Your task to perform on an android device: open app "PlayWell" (install if not already installed) and enter user name: "metric@gmail.com" and password: "bumblebee" Image 0: 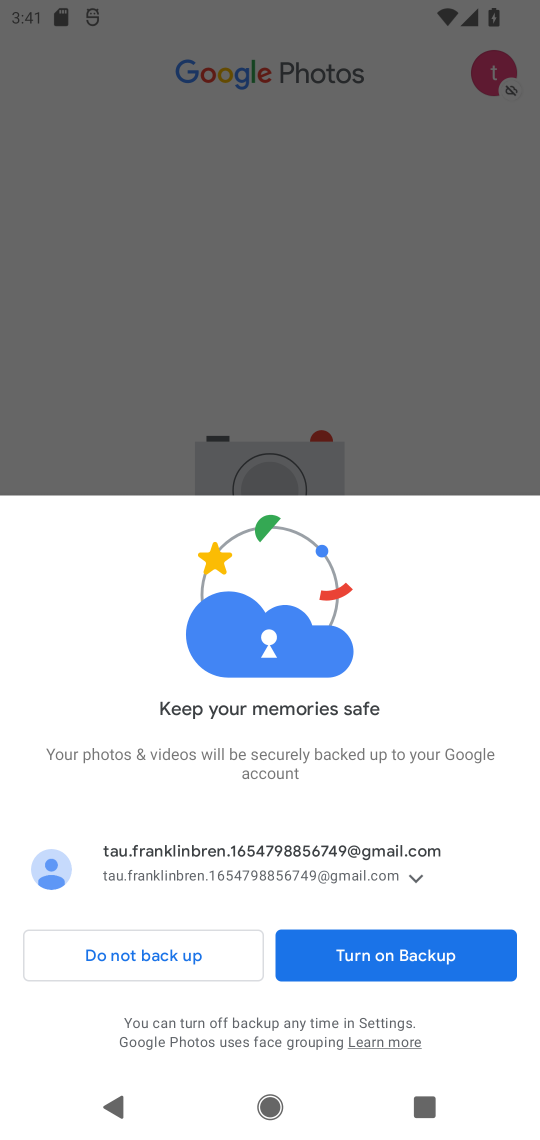
Step 0: press home button
Your task to perform on an android device: open app "PlayWell" (install if not already installed) and enter user name: "metric@gmail.com" and password: "bumblebee" Image 1: 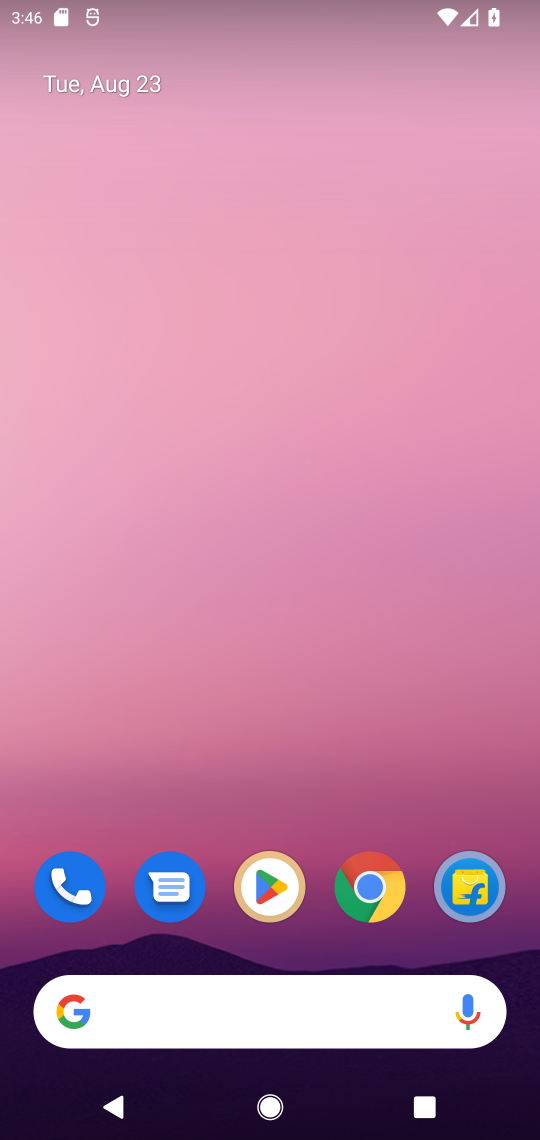
Step 1: click (259, 888)
Your task to perform on an android device: open app "PlayWell" (install if not already installed) and enter user name: "metric@gmail.com" and password: "bumblebee" Image 2: 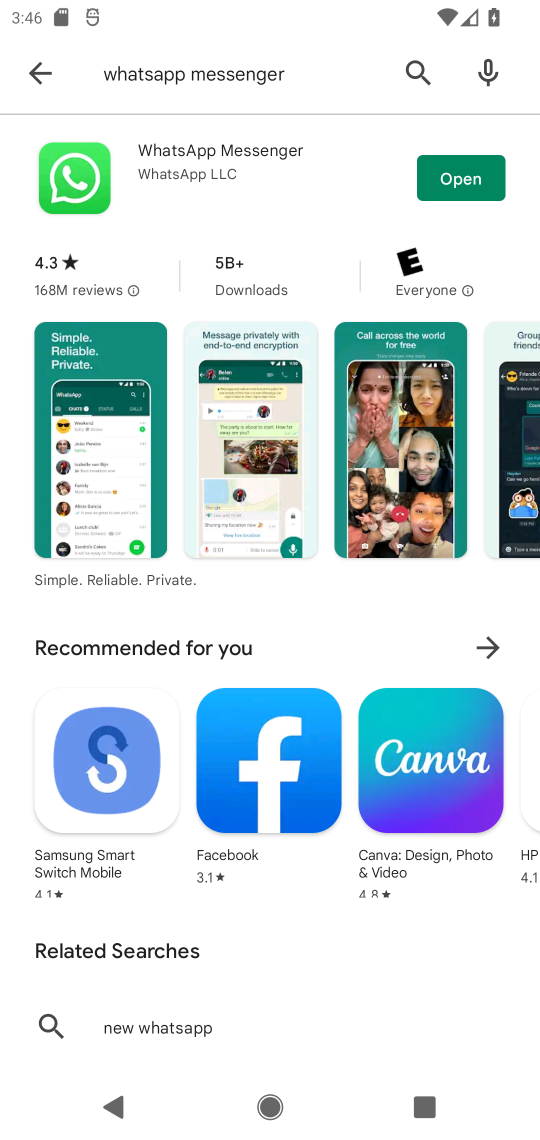
Step 2: click (36, 79)
Your task to perform on an android device: open app "PlayWell" (install if not already installed) and enter user name: "metric@gmail.com" and password: "bumblebee" Image 3: 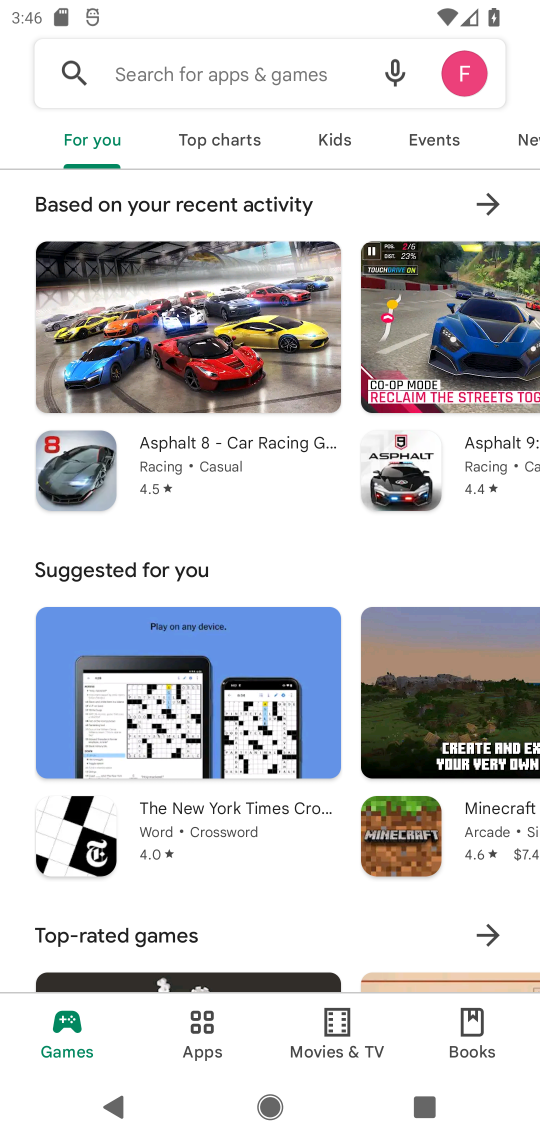
Step 3: click (159, 75)
Your task to perform on an android device: open app "PlayWell" (install if not already installed) and enter user name: "metric@gmail.com" and password: "bumblebee" Image 4: 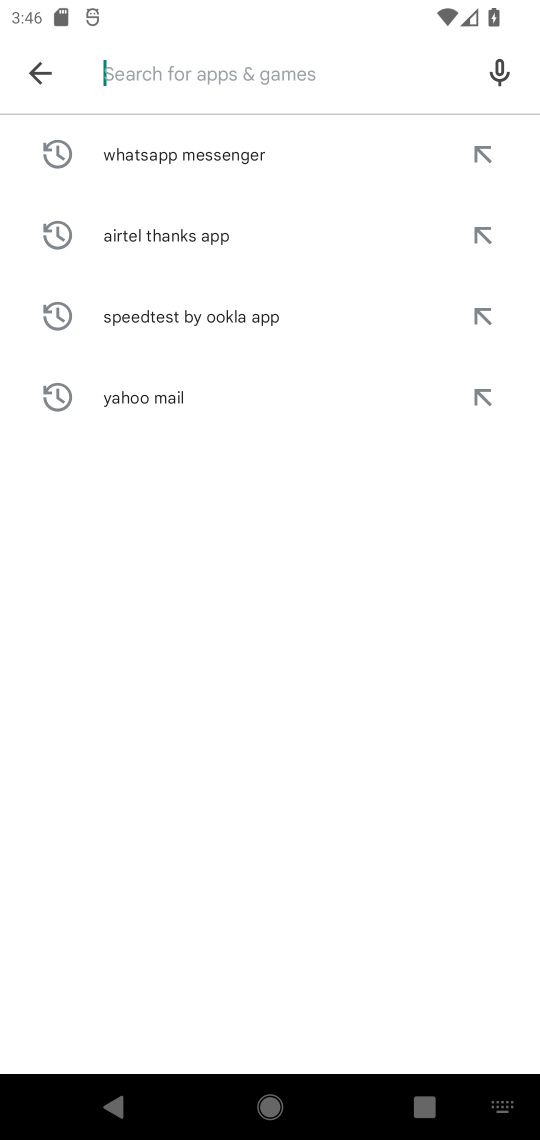
Step 4: type "PlayWell"
Your task to perform on an android device: open app "PlayWell" (install if not already installed) and enter user name: "metric@gmail.com" and password: "bumblebee" Image 5: 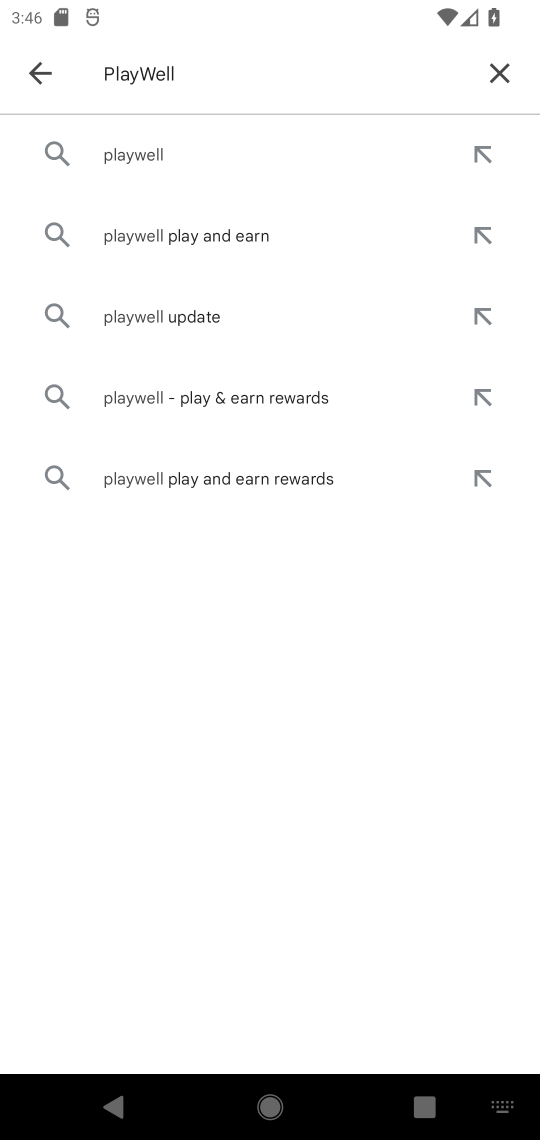
Step 5: click (138, 160)
Your task to perform on an android device: open app "PlayWell" (install if not already installed) and enter user name: "metric@gmail.com" and password: "bumblebee" Image 6: 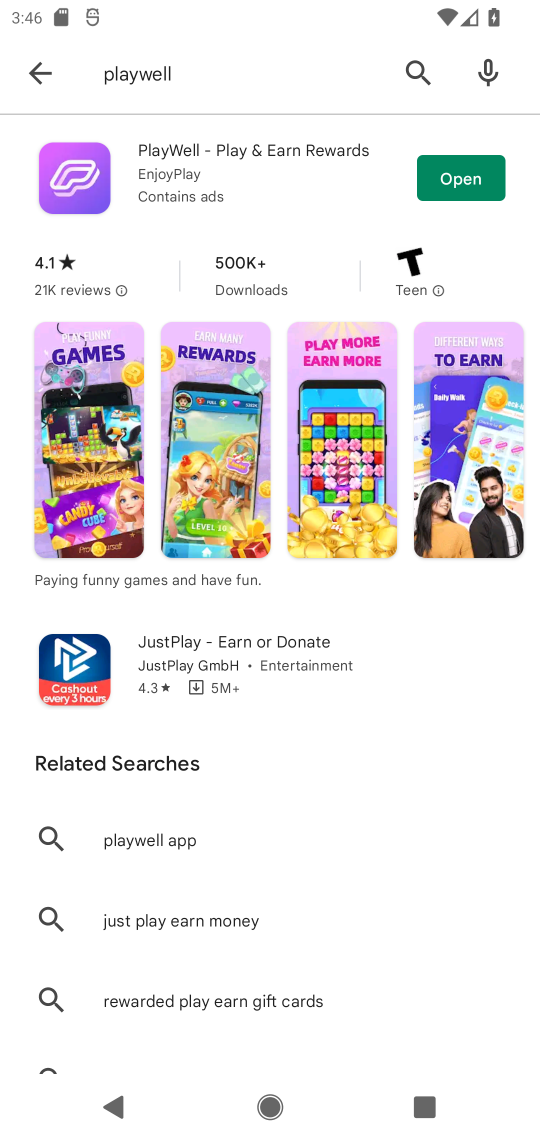
Step 6: click (466, 175)
Your task to perform on an android device: open app "PlayWell" (install if not already installed) and enter user name: "metric@gmail.com" and password: "bumblebee" Image 7: 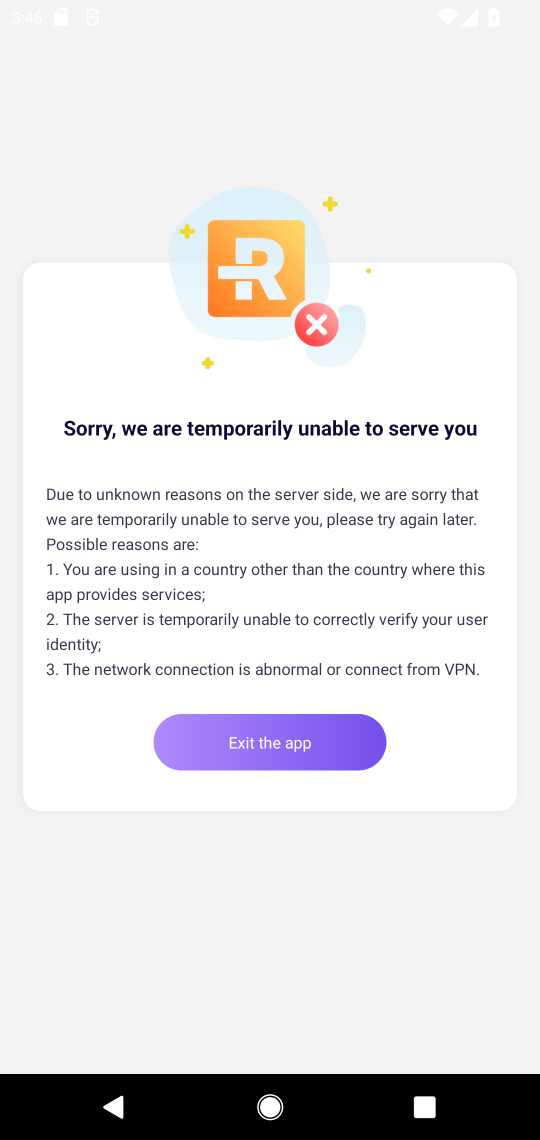
Step 7: task complete